Your task to perform on an android device: Open my contact list Image 0: 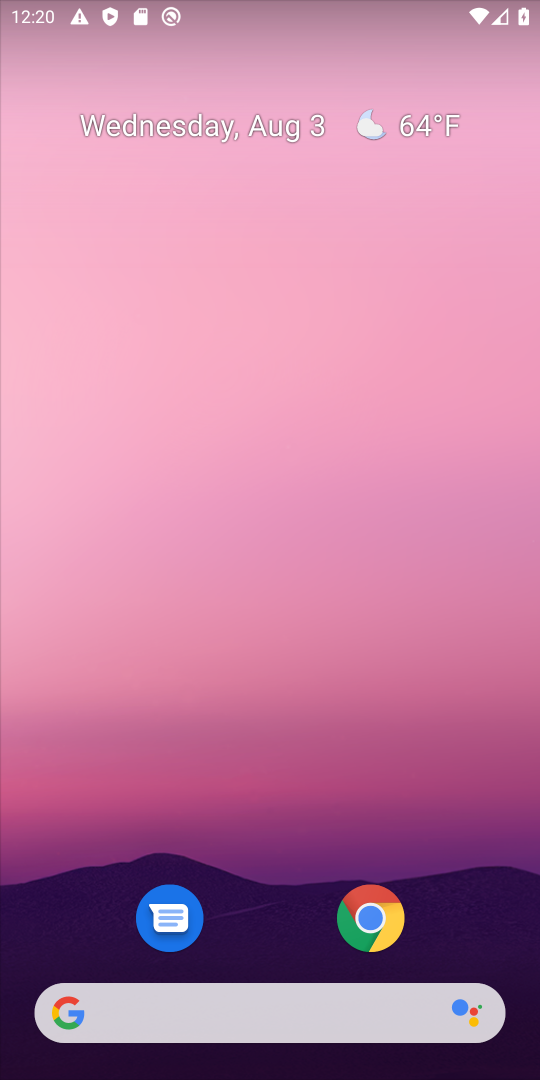
Step 0: drag from (278, 870) to (353, 188)
Your task to perform on an android device: Open my contact list Image 1: 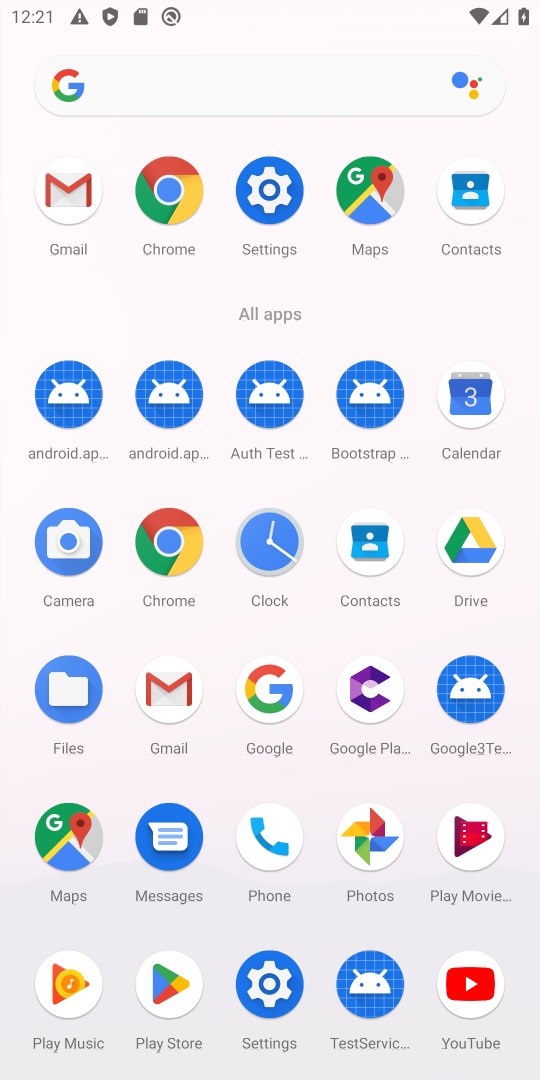
Step 1: click (481, 189)
Your task to perform on an android device: Open my contact list Image 2: 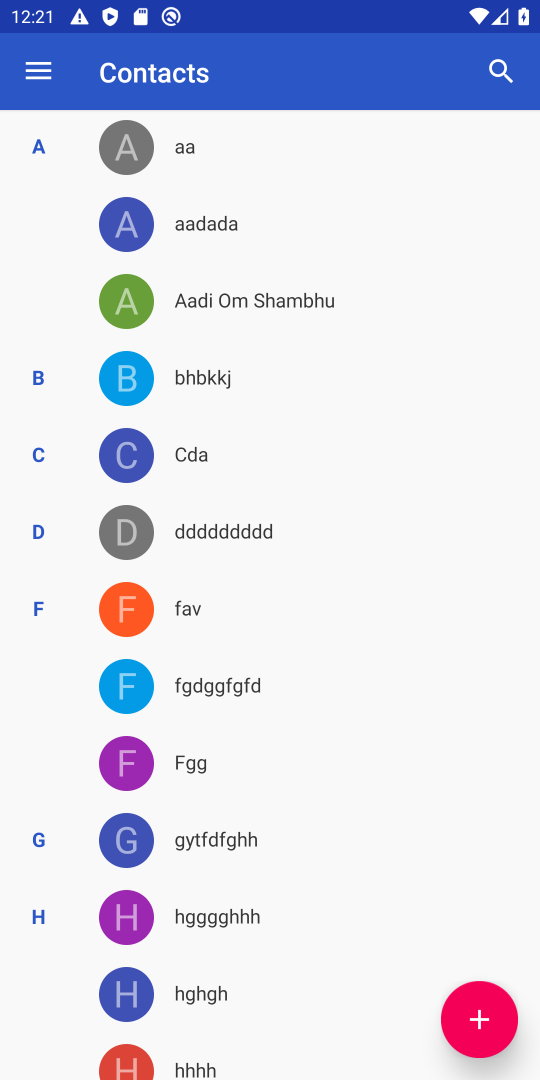
Step 2: task complete